Your task to perform on an android device: check out phone information Image 0: 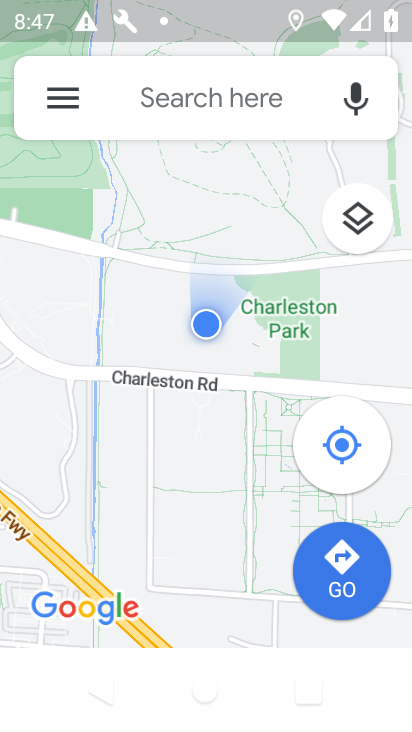
Step 0: press back button
Your task to perform on an android device: check out phone information Image 1: 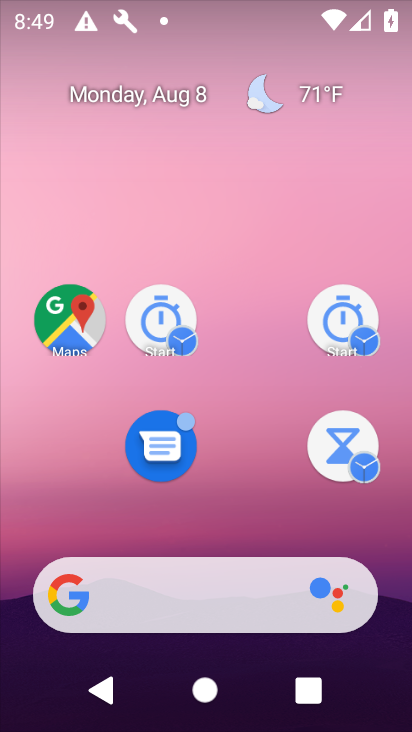
Step 1: drag from (239, 697) to (245, 178)
Your task to perform on an android device: check out phone information Image 2: 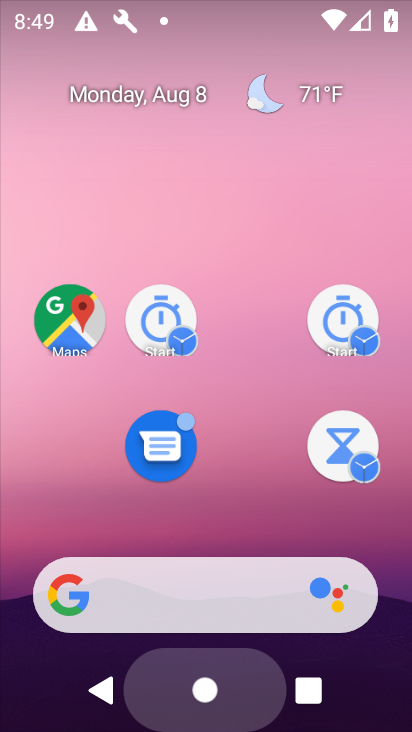
Step 2: drag from (305, 214) to (310, 29)
Your task to perform on an android device: check out phone information Image 3: 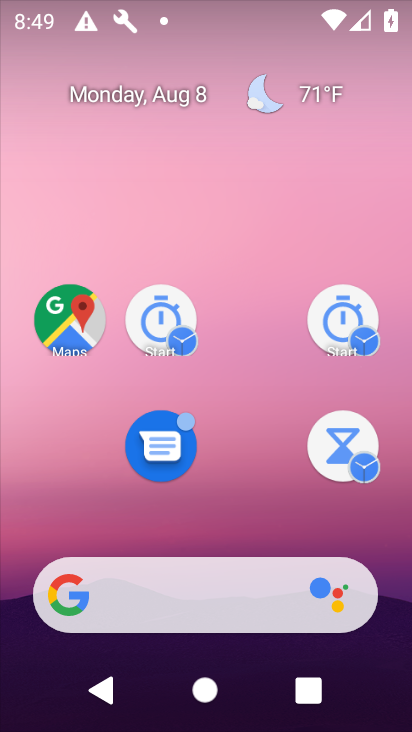
Step 3: drag from (240, 389) to (237, 26)
Your task to perform on an android device: check out phone information Image 4: 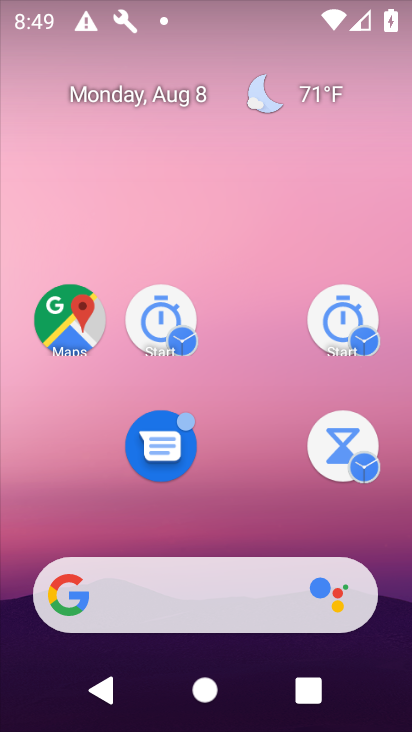
Step 4: drag from (273, 413) to (248, 70)
Your task to perform on an android device: check out phone information Image 5: 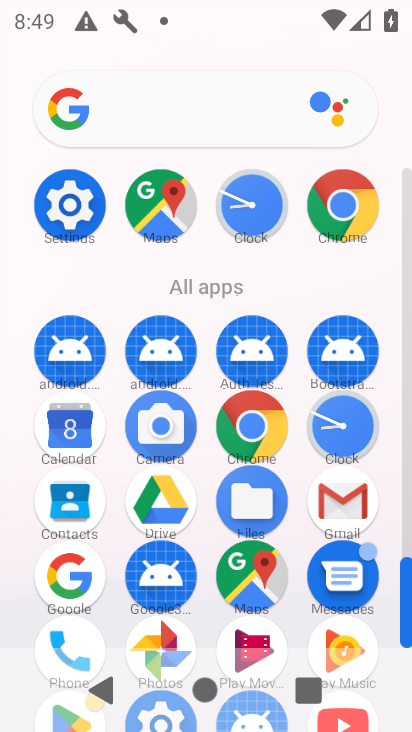
Step 5: click (74, 195)
Your task to perform on an android device: check out phone information Image 6: 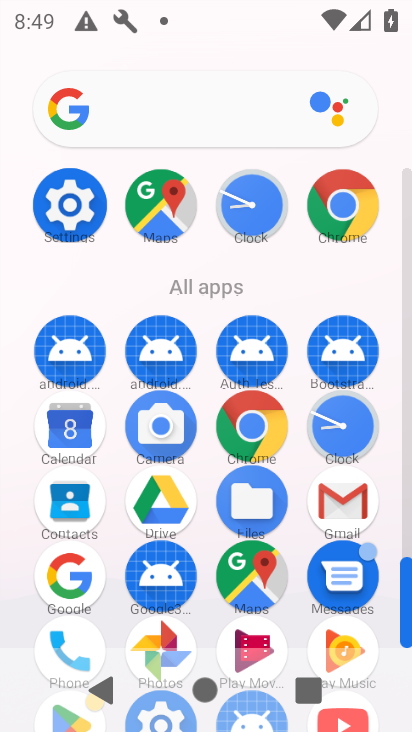
Step 6: click (67, 210)
Your task to perform on an android device: check out phone information Image 7: 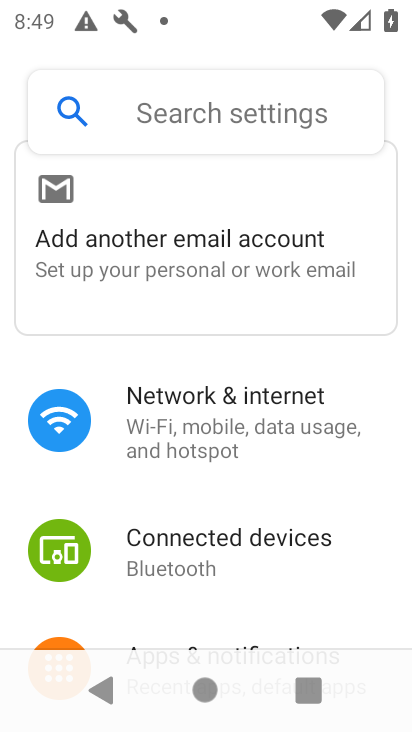
Step 7: drag from (245, 475) to (241, 257)
Your task to perform on an android device: check out phone information Image 8: 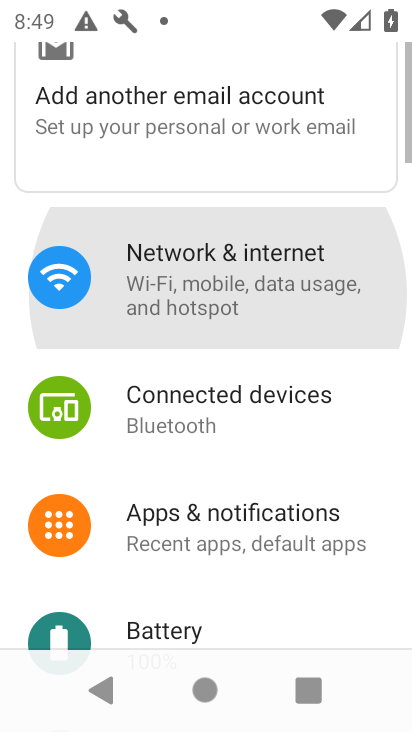
Step 8: drag from (286, 429) to (291, 171)
Your task to perform on an android device: check out phone information Image 9: 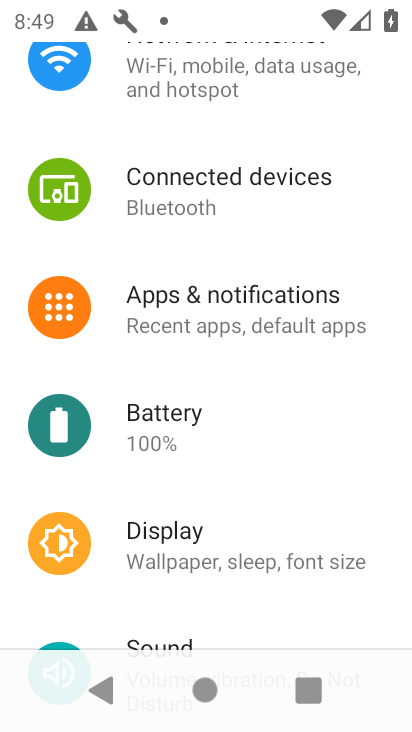
Step 9: drag from (245, 463) to (273, 182)
Your task to perform on an android device: check out phone information Image 10: 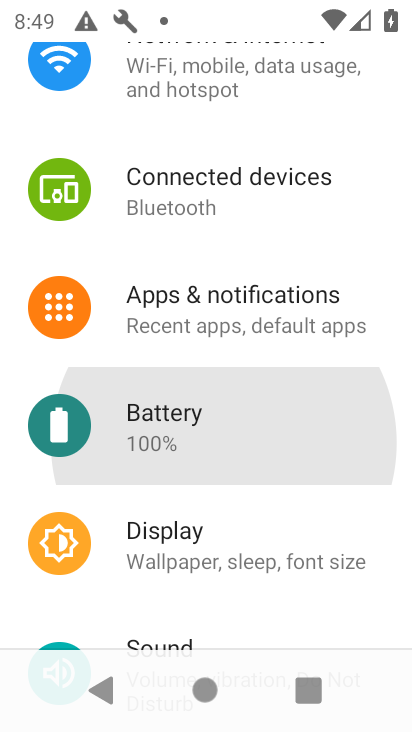
Step 10: drag from (262, 414) to (247, 172)
Your task to perform on an android device: check out phone information Image 11: 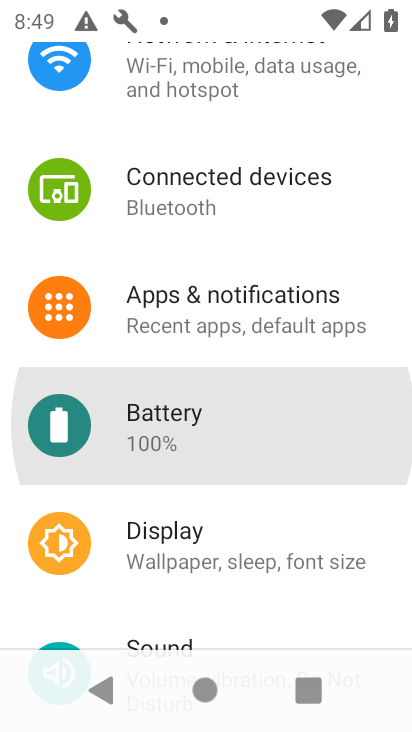
Step 11: drag from (241, 438) to (224, 183)
Your task to perform on an android device: check out phone information Image 12: 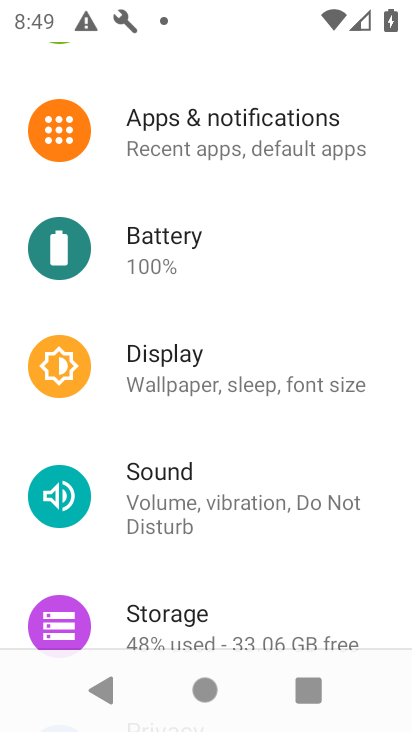
Step 12: drag from (227, 173) to (251, 433)
Your task to perform on an android device: check out phone information Image 13: 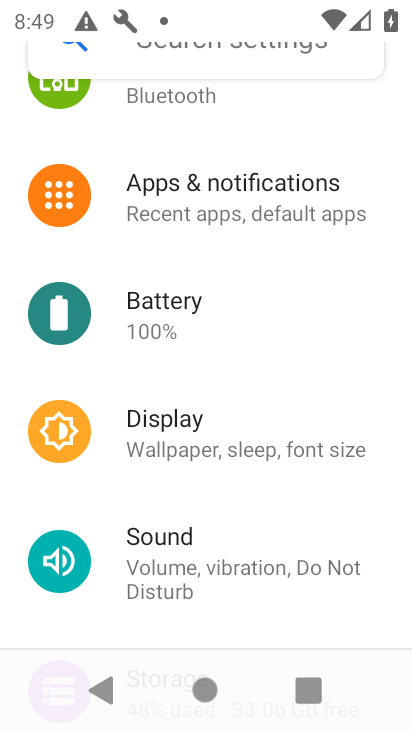
Step 13: drag from (181, 523) to (146, 181)
Your task to perform on an android device: check out phone information Image 14: 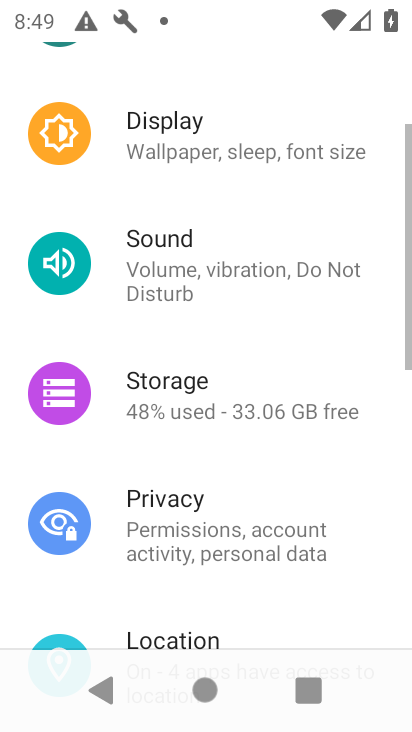
Step 14: drag from (222, 553) to (229, 139)
Your task to perform on an android device: check out phone information Image 15: 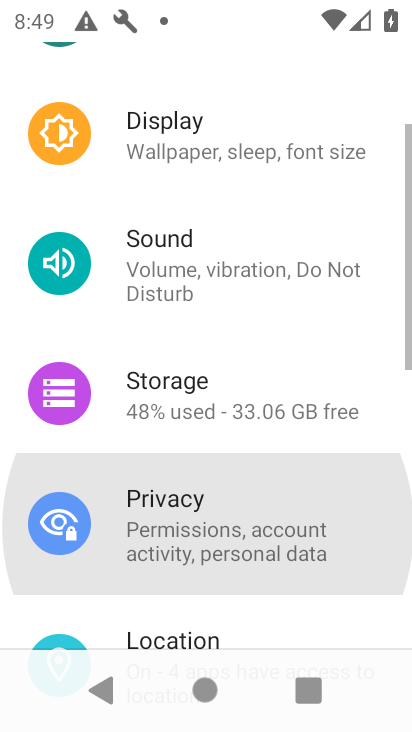
Step 15: drag from (269, 467) to (278, 139)
Your task to perform on an android device: check out phone information Image 16: 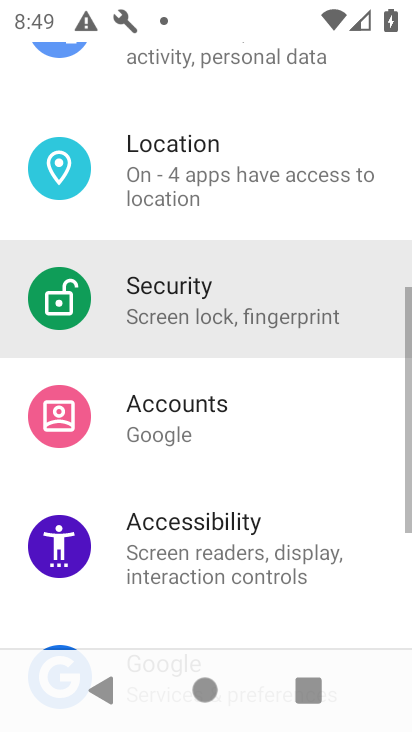
Step 16: drag from (289, 333) to (295, 141)
Your task to perform on an android device: check out phone information Image 17: 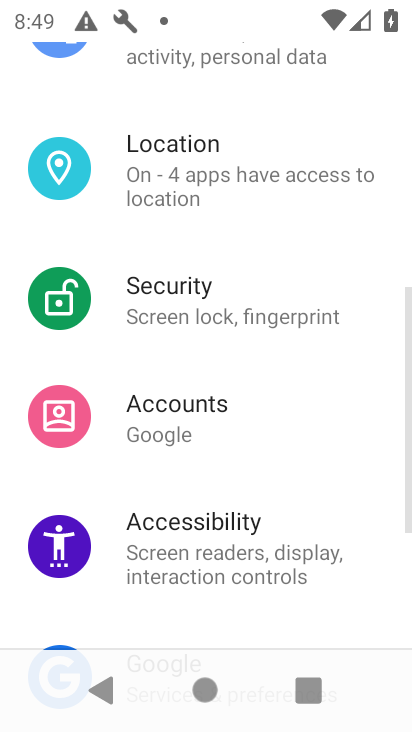
Step 17: drag from (161, 517) to (201, 220)
Your task to perform on an android device: check out phone information Image 18: 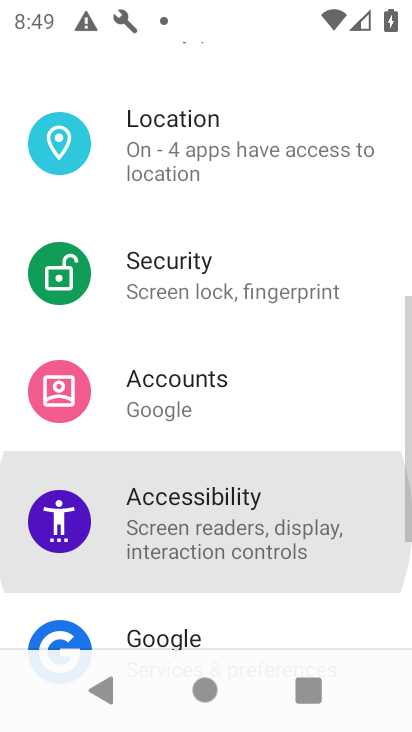
Step 18: drag from (252, 327) to (225, 225)
Your task to perform on an android device: check out phone information Image 19: 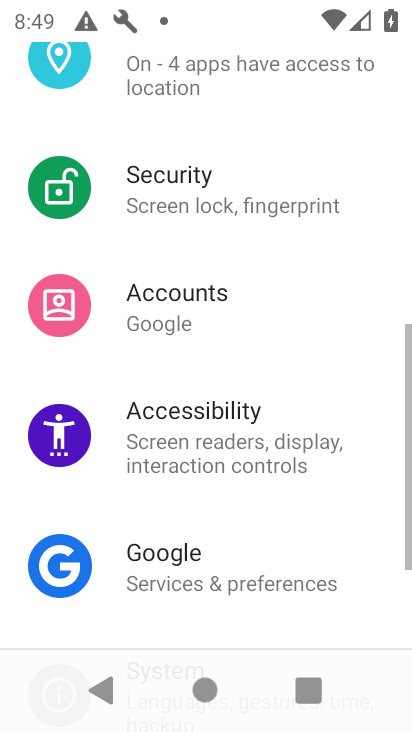
Step 19: drag from (253, 510) to (266, 243)
Your task to perform on an android device: check out phone information Image 20: 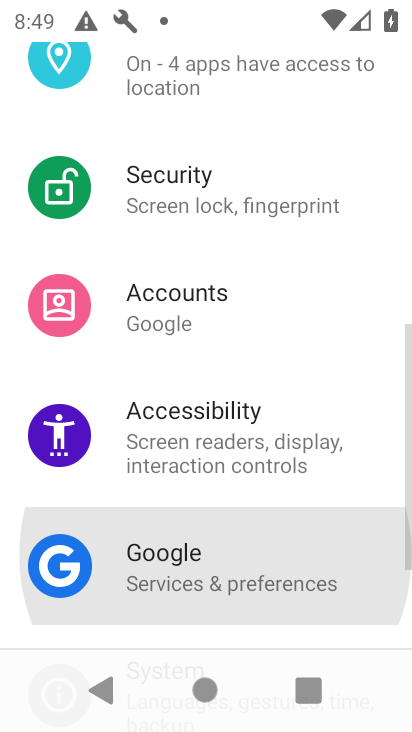
Step 20: drag from (253, 450) to (253, 222)
Your task to perform on an android device: check out phone information Image 21: 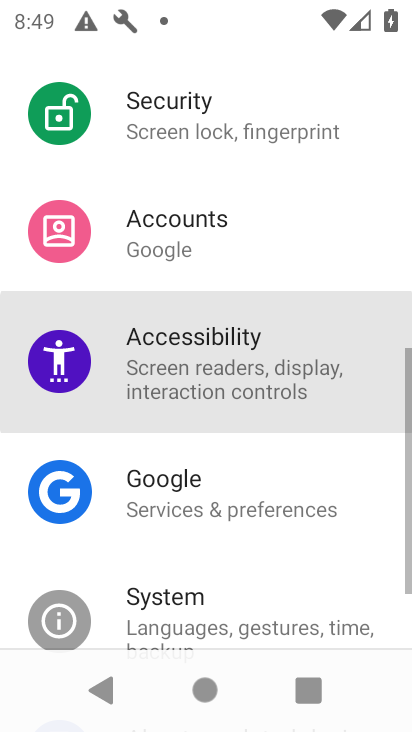
Step 21: drag from (276, 278) to (270, 214)
Your task to perform on an android device: check out phone information Image 22: 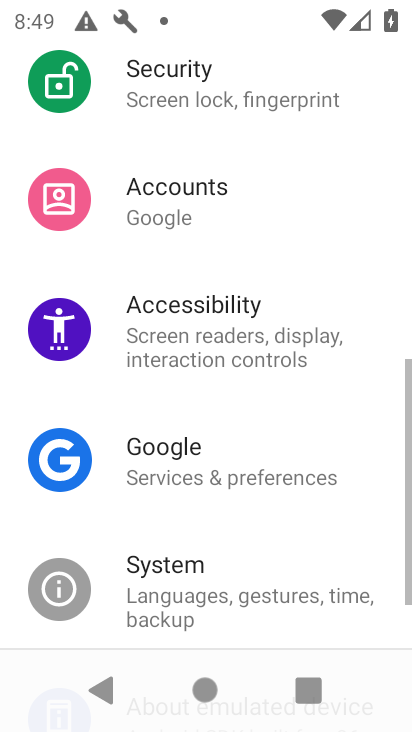
Step 22: drag from (264, 443) to (294, 236)
Your task to perform on an android device: check out phone information Image 23: 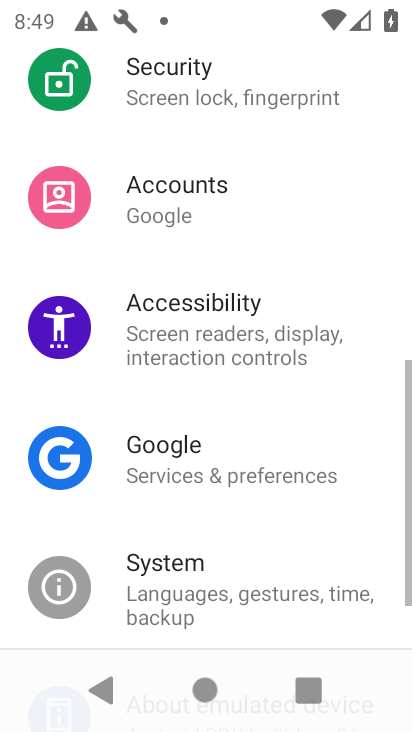
Step 23: drag from (291, 419) to (291, 293)
Your task to perform on an android device: check out phone information Image 24: 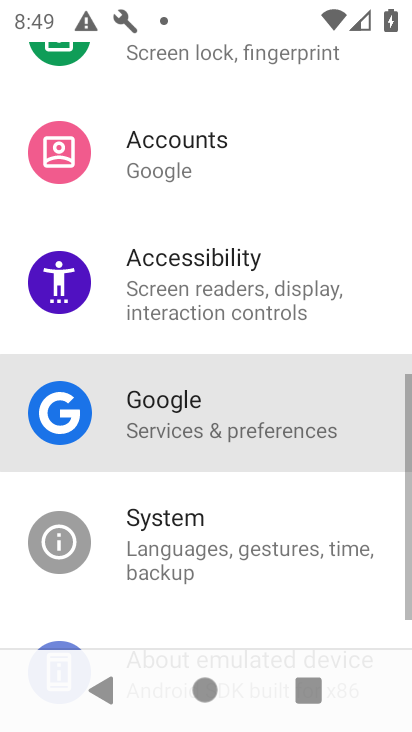
Step 24: drag from (264, 414) to (271, 144)
Your task to perform on an android device: check out phone information Image 25: 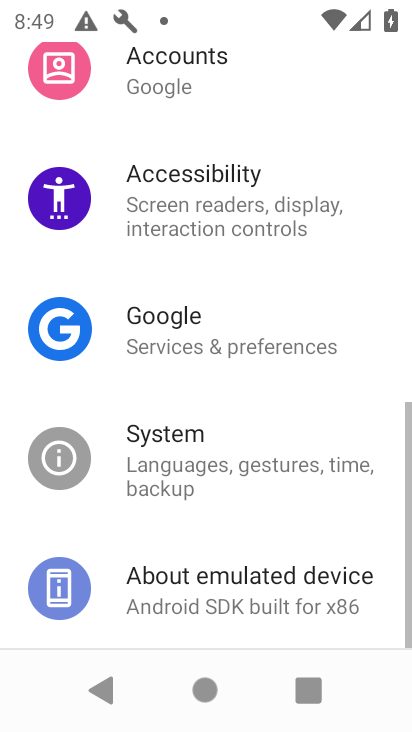
Step 25: drag from (233, 301) to (237, 144)
Your task to perform on an android device: check out phone information Image 26: 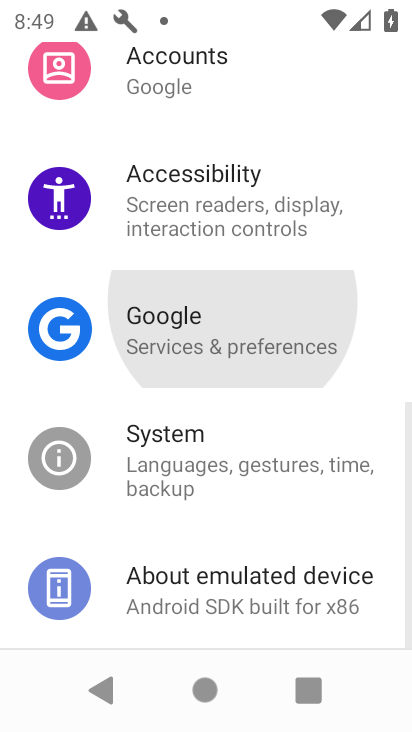
Step 26: drag from (302, 118) to (334, 132)
Your task to perform on an android device: check out phone information Image 27: 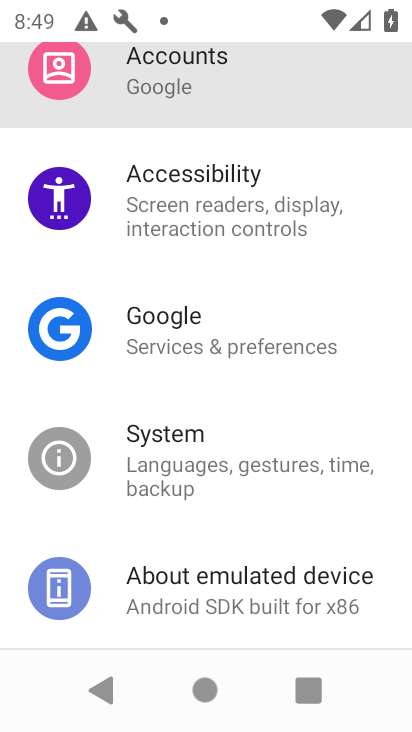
Step 27: drag from (284, 308) to (284, 233)
Your task to perform on an android device: check out phone information Image 28: 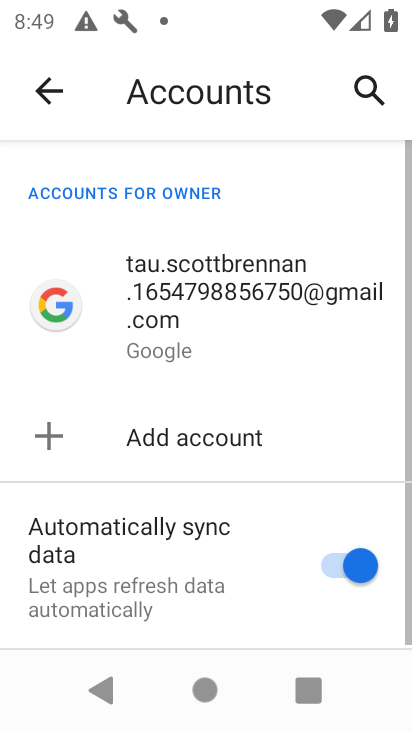
Step 28: click (213, 592)
Your task to perform on an android device: check out phone information Image 29: 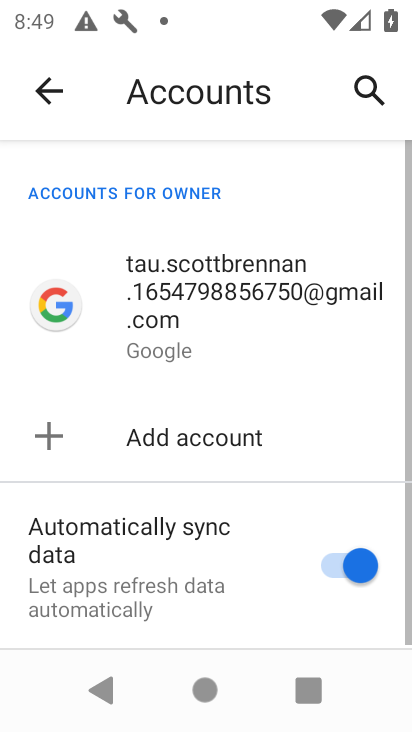
Step 29: click (32, 96)
Your task to perform on an android device: check out phone information Image 30: 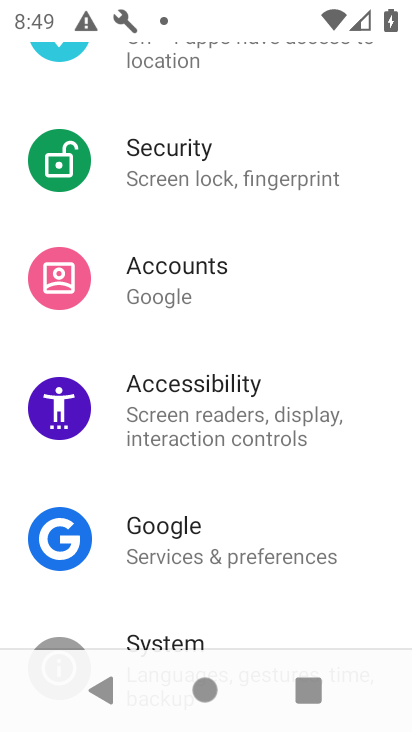
Step 30: click (197, 620)
Your task to perform on an android device: check out phone information Image 31: 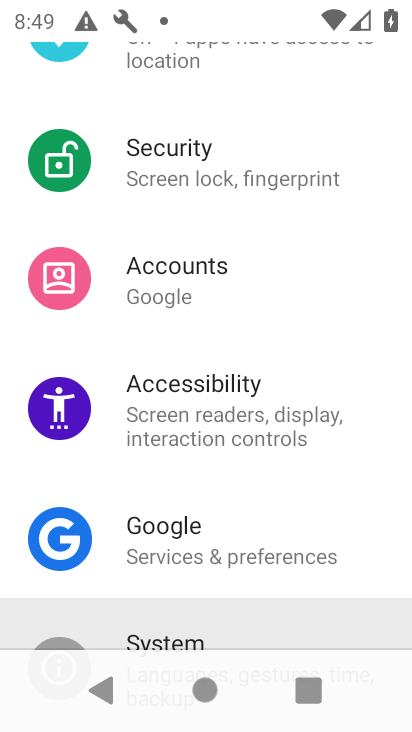
Step 31: drag from (200, 501) to (211, 216)
Your task to perform on an android device: check out phone information Image 32: 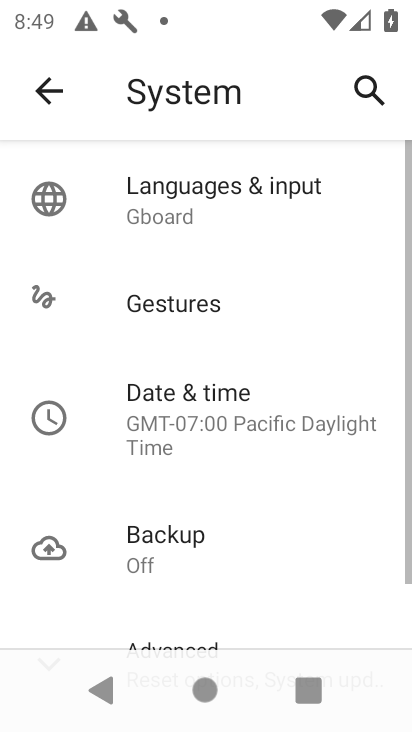
Step 32: click (53, 80)
Your task to perform on an android device: check out phone information Image 33: 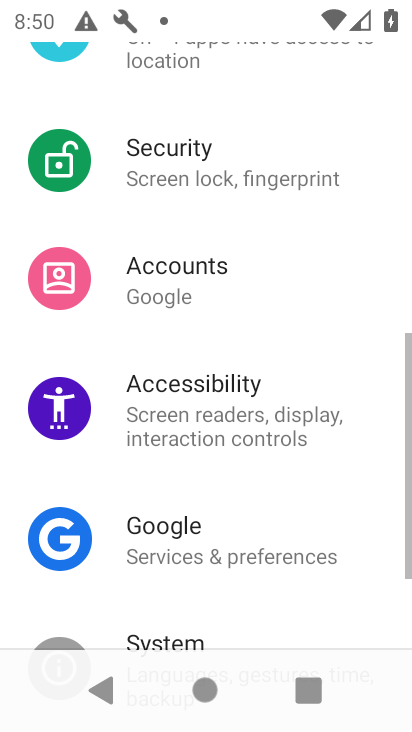
Step 33: drag from (251, 555) to (237, 283)
Your task to perform on an android device: check out phone information Image 34: 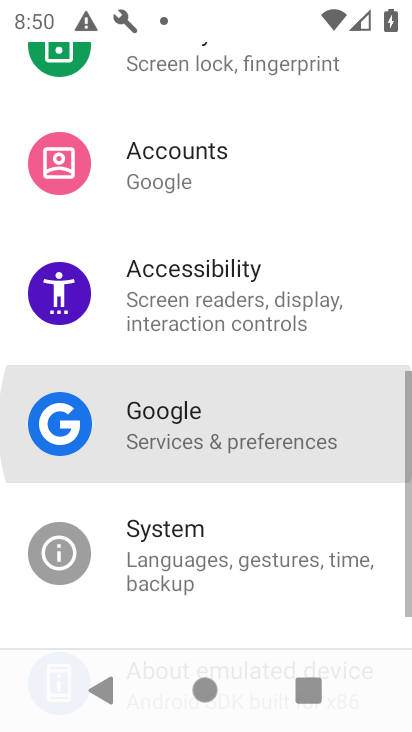
Step 34: drag from (309, 549) to (321, 242)
Your task to perform on an android device: check out phone information Image 35: 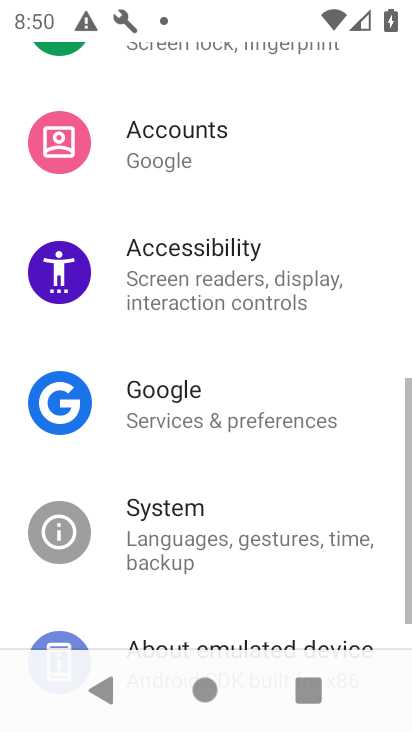
Step 35: drag from (302, 342) to (314, 255)
Your task to perform on an android device: check out phone information Image 36: 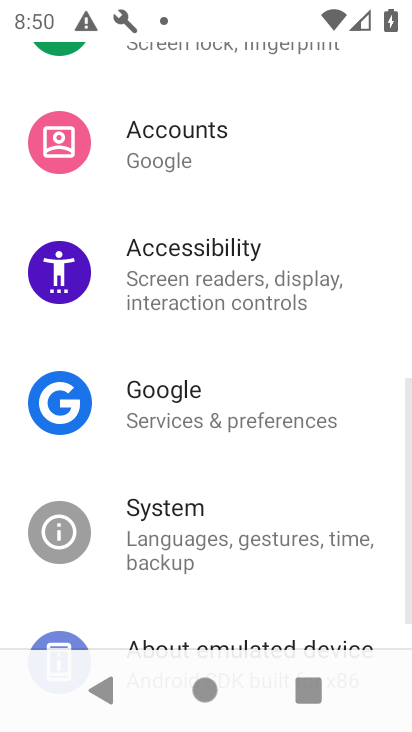
Step 36: drag from (320, 483) to (333, 181)
Your task to perform on an android device: check out phone information Image 37: 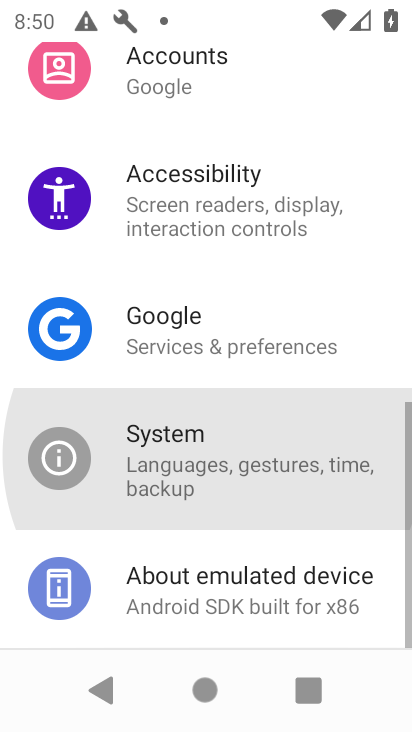
Step 37: drag from (309, 531) to (287, 239)
Your task to perform on an android device: check out phone information Image 38: 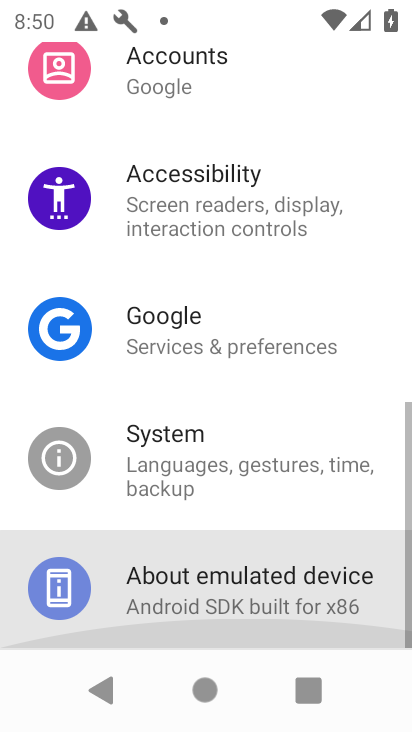
Step 38: drag from (226, 458) to (238, 165)
Your task to perform on an android device: check out phone information Image 39: 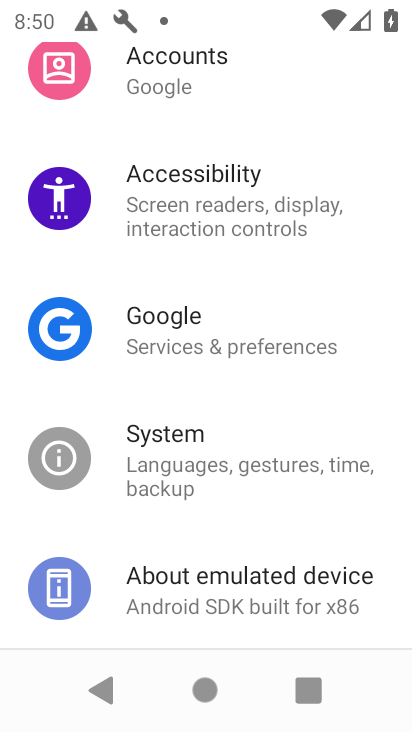
Step 39: click (207, 597)
Your task to perform on an android device: check out phone information Image 40: 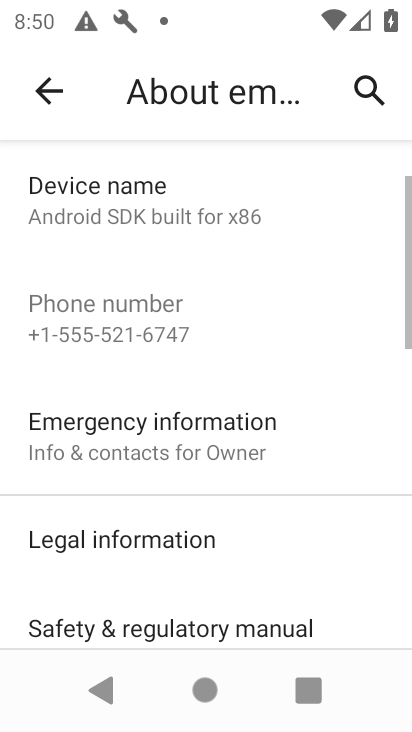
Step 40: task complete